Your task to perform on an android device: search for starred emails in the gmail app Image 0: 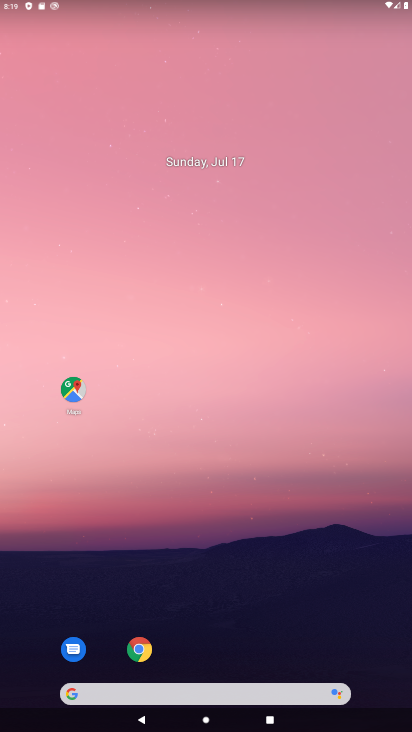
Step 0: drag from (210, 639) to (232, 190)
Your task to perform on an android device: search for starred emails in the gmail app Image 1: 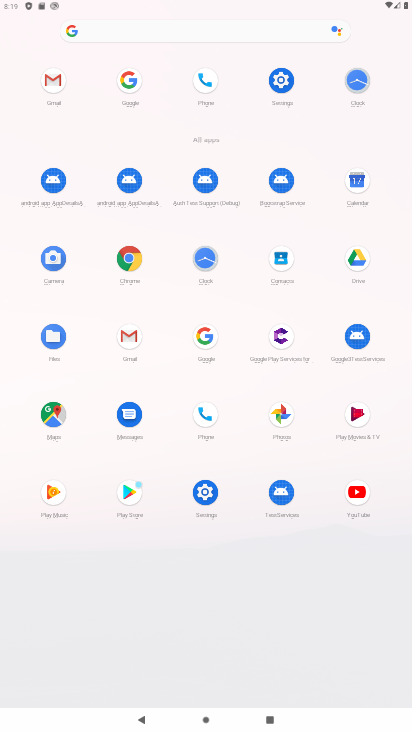
Step 1: click (130, 336)
Your task to perform on an android device: search for starred emails in the gmail app Image 2: 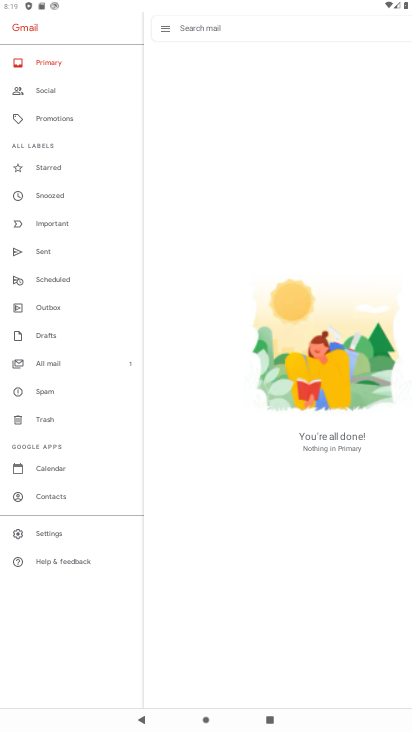
Step 2: click (51, 171)
Your task to perform on an android device: search for starred emails in the gmail app Image 3: 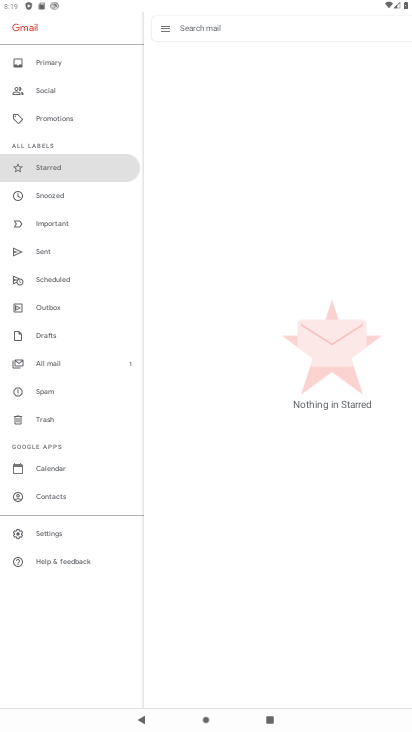
Step 3: task complete